Your task to perform on an android device: add a label to a message in the gmail app Image 0: 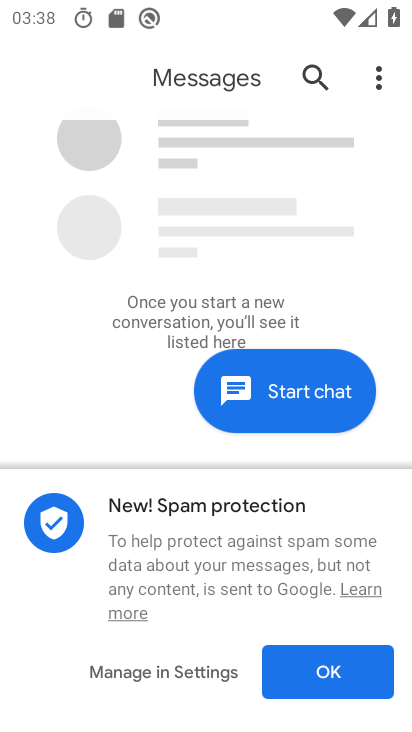
Step 0: press home button
Your task to perform on an android device: add a label to a message in the gmail app Image 1: 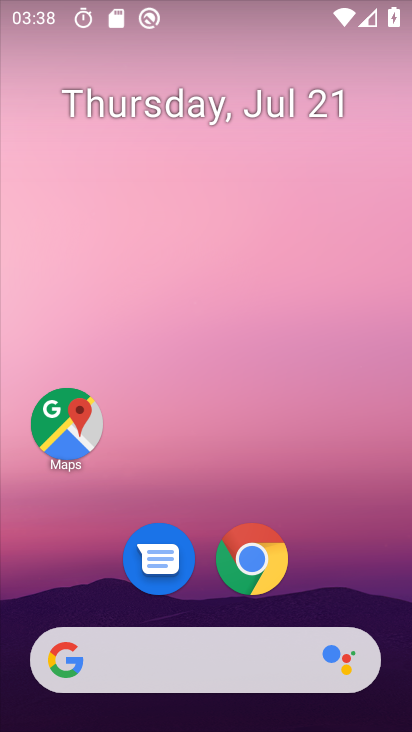
Step 1: drag from (358, 555) to (373, 53)
Your task to perform on an android device: add a label to a message in the gmail app Image 2: 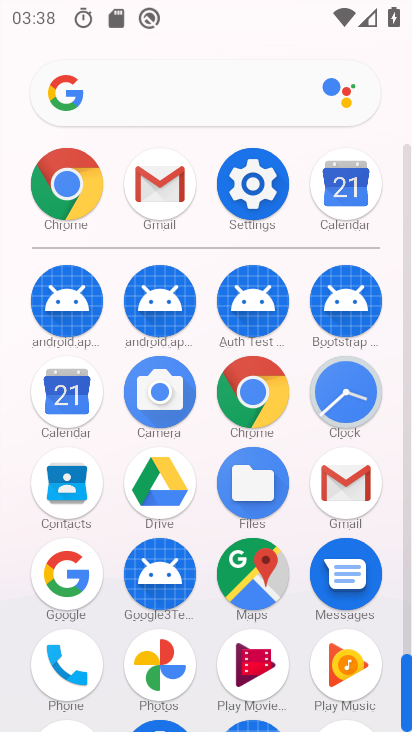
Step 2: click (355, 481)
Your task to perform on an android device: add a label to a message in the gmail app Image 3: 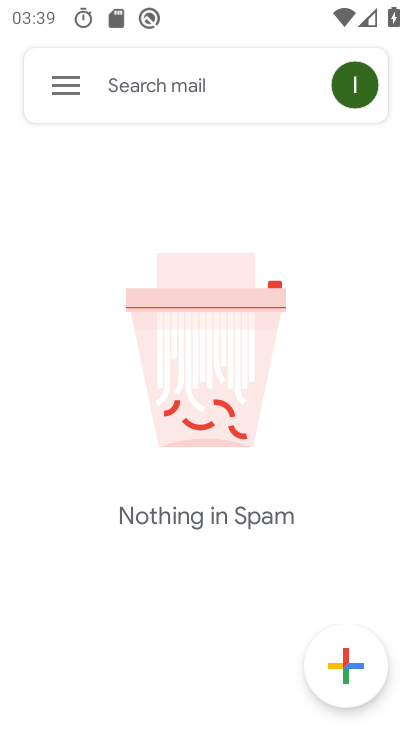
Step 3: click (69, 90)
Your task to perform on an android device: add a label to a message in the gmail app Image 4: 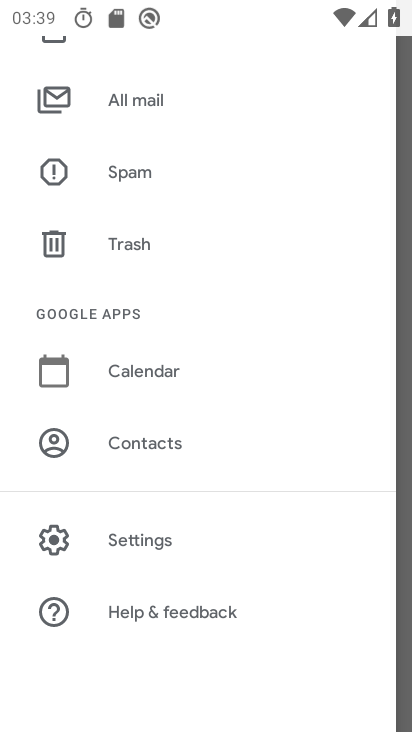
Step 4: click (168, 106)
Your task to perform on an android device: add a label to a message in the gmail app Image 5: 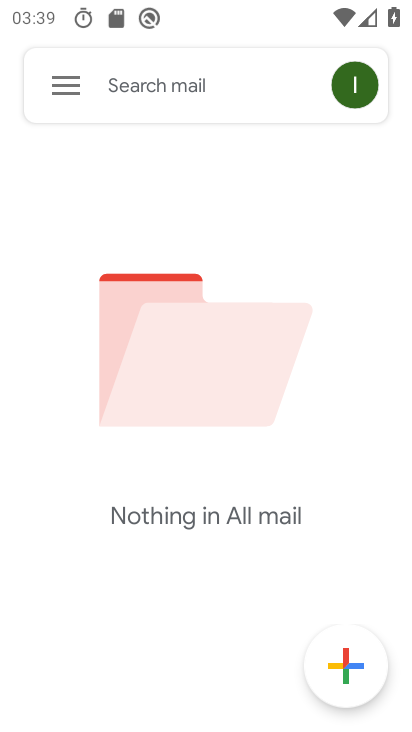
Step 5: task complete